Your task to perform on an android device: Toggle the flashlight Image 0: 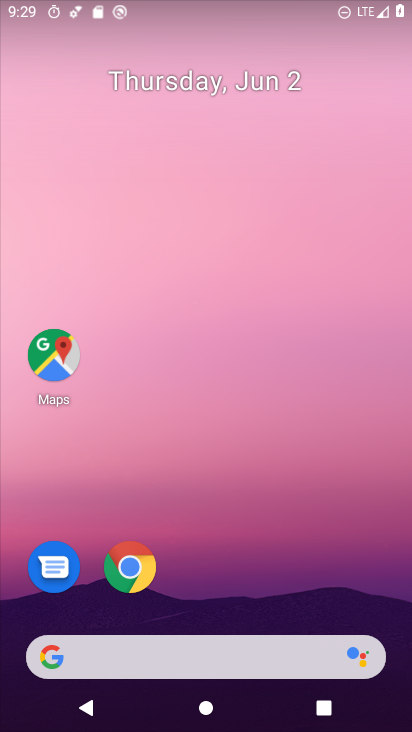
Step 0: drag from (314, 594) to (300, 148)
Your task to perform on an android device: Toggle the flashlight Image 1: 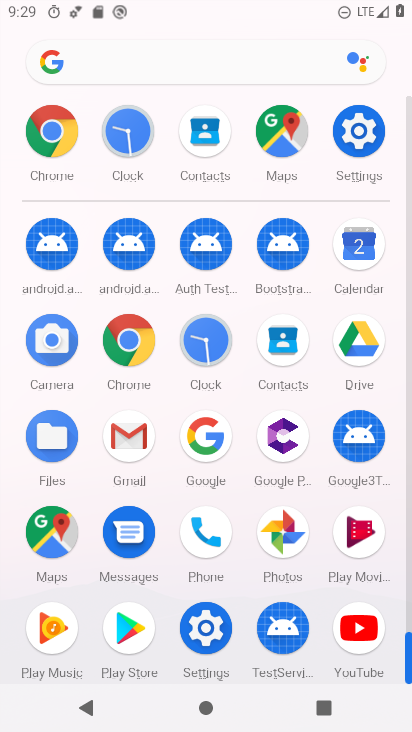
Step 1: click (349, 148)
Your task to perform on an android device: Toggle the flashlight Image 2: 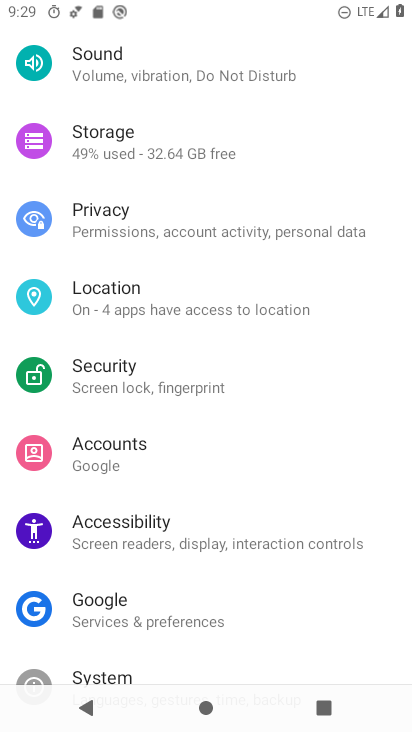
Step 2: drag from (241, 122) to (252, 614)
Your task to perform on an android device: Toggle the flashlight Image 3: 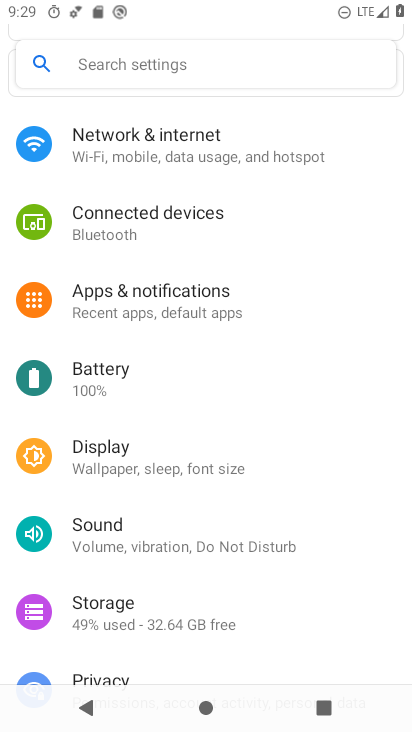
Step 3: drag from (259, 174) to (301, 662)
Your task to perform on an android device: Toggle the flashlight Image 4: 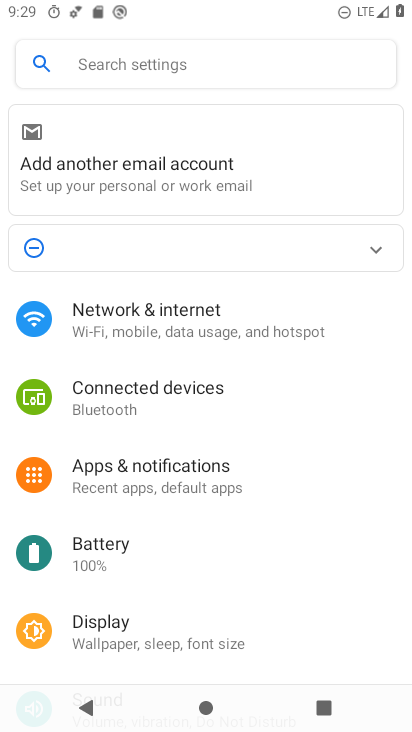
Step 4: drag from (197, 571) to (244, 396)
Your task to perform on an android device: Toggle the flashlight Image 5: 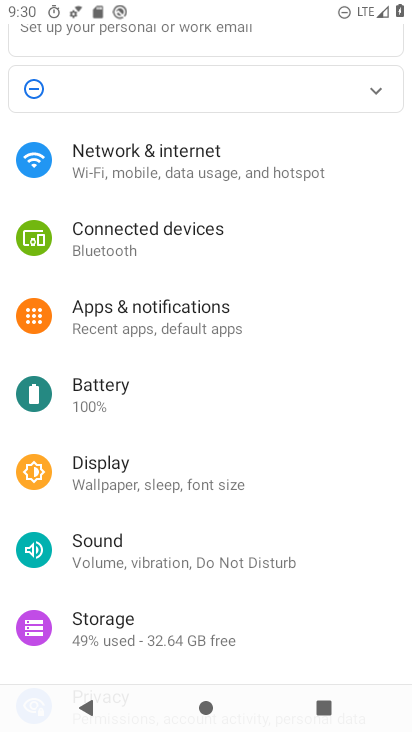
Step 5: drag from (251, 179) to (276, 517)
Your task to perform on an android device: Toggle the flashlight Image 6: 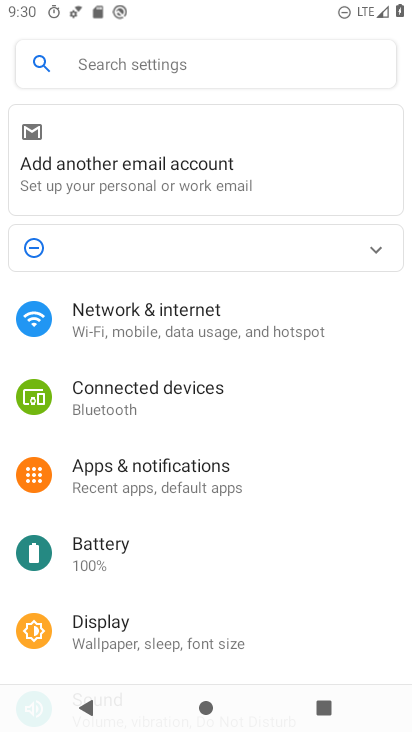
Step 6: click (209, 57)
Your task to perform on an android device: Toggle the flashlight Image 7: 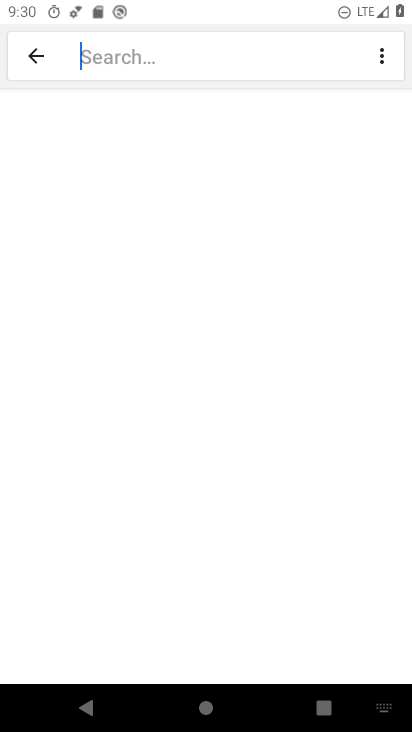
Step 7: type "flashlight"
Your task to perform on an android device: Toggle the flashlight Image 8: 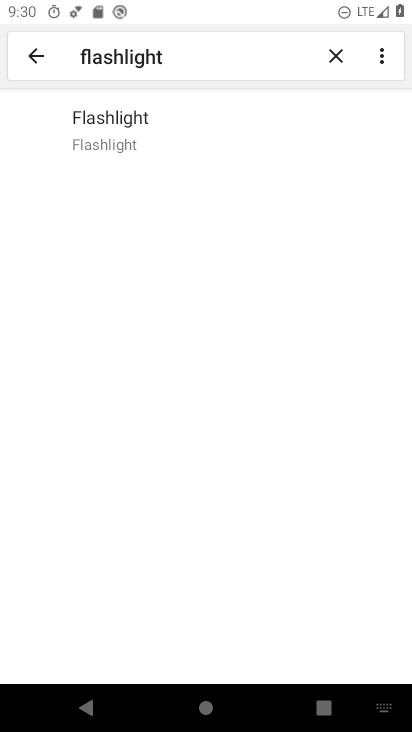
Step 8: click (129, 128)
Your task to perform on an android device: Toggle the flashlight Image 9: 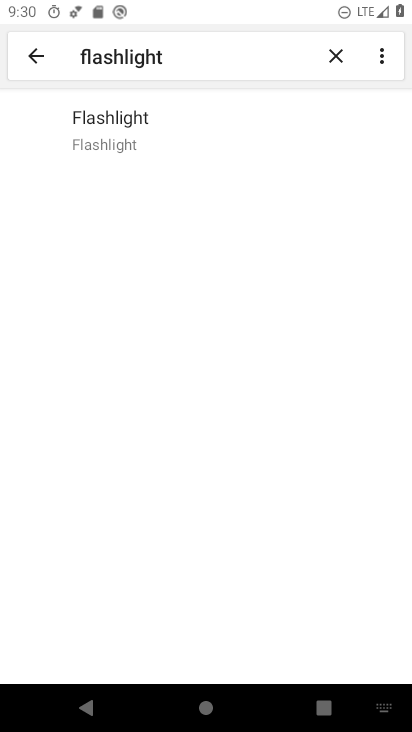
Step 9: task complete